Your task to perform on an android device: Open Yahoo.com Image 0: 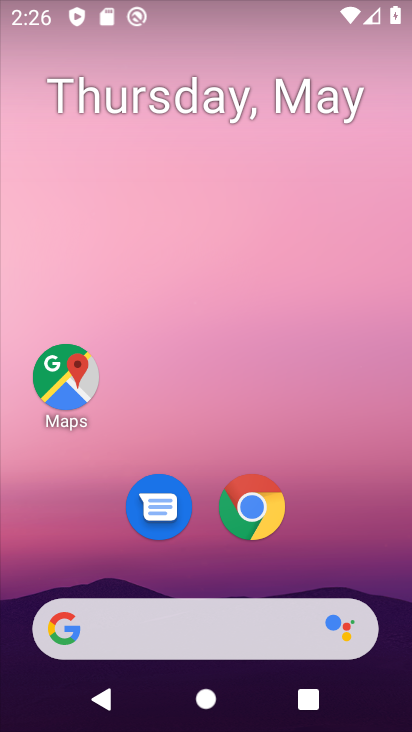
Step 0: click (248, 498)
Your task to perform on an android device: Open Yahoo.com Image 1: 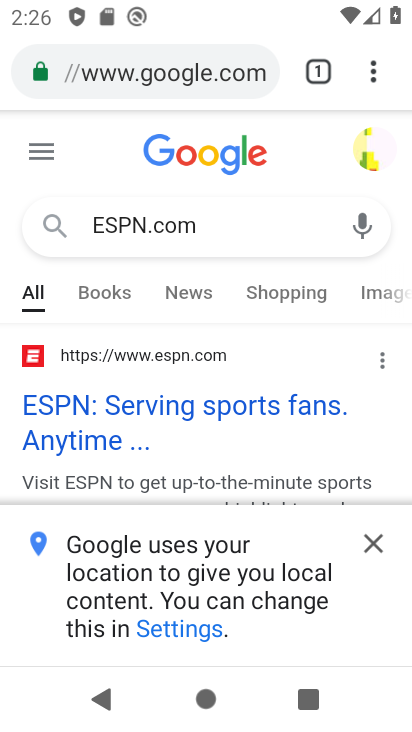
Step 1: click (184, 76)
Your task to perform on an android device: Open Yahoo.com Image 2: 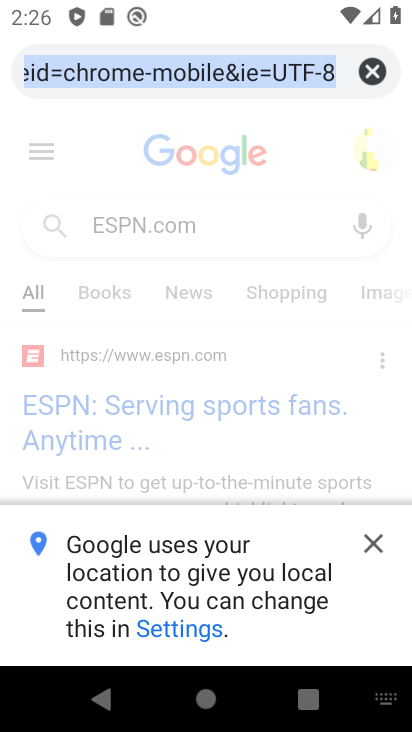
Step 2: type "yahoo.com"
Your task to perform on an android device: Open Yahoo.com Image 3: 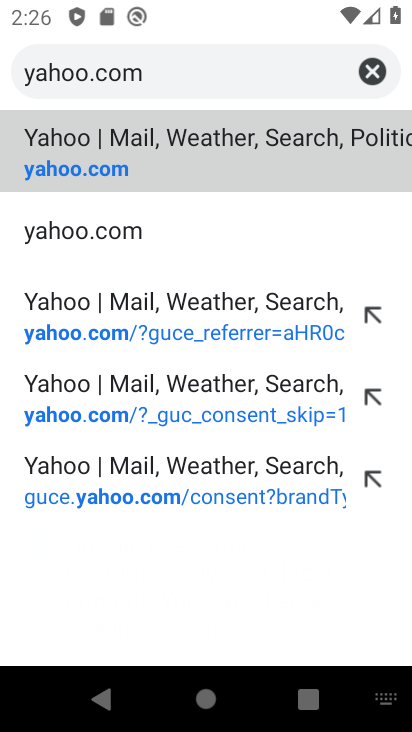
Step 3: click (186, 181)
Your task to perform on an android device: Open Yahoo.com Image 4: 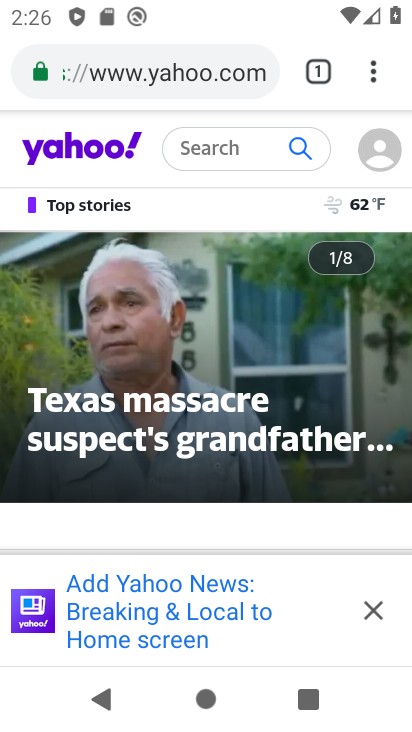
Step 4: task complete